Your task to perform on an android device: install app "Adobe Express: Graphic Design" Image 0: 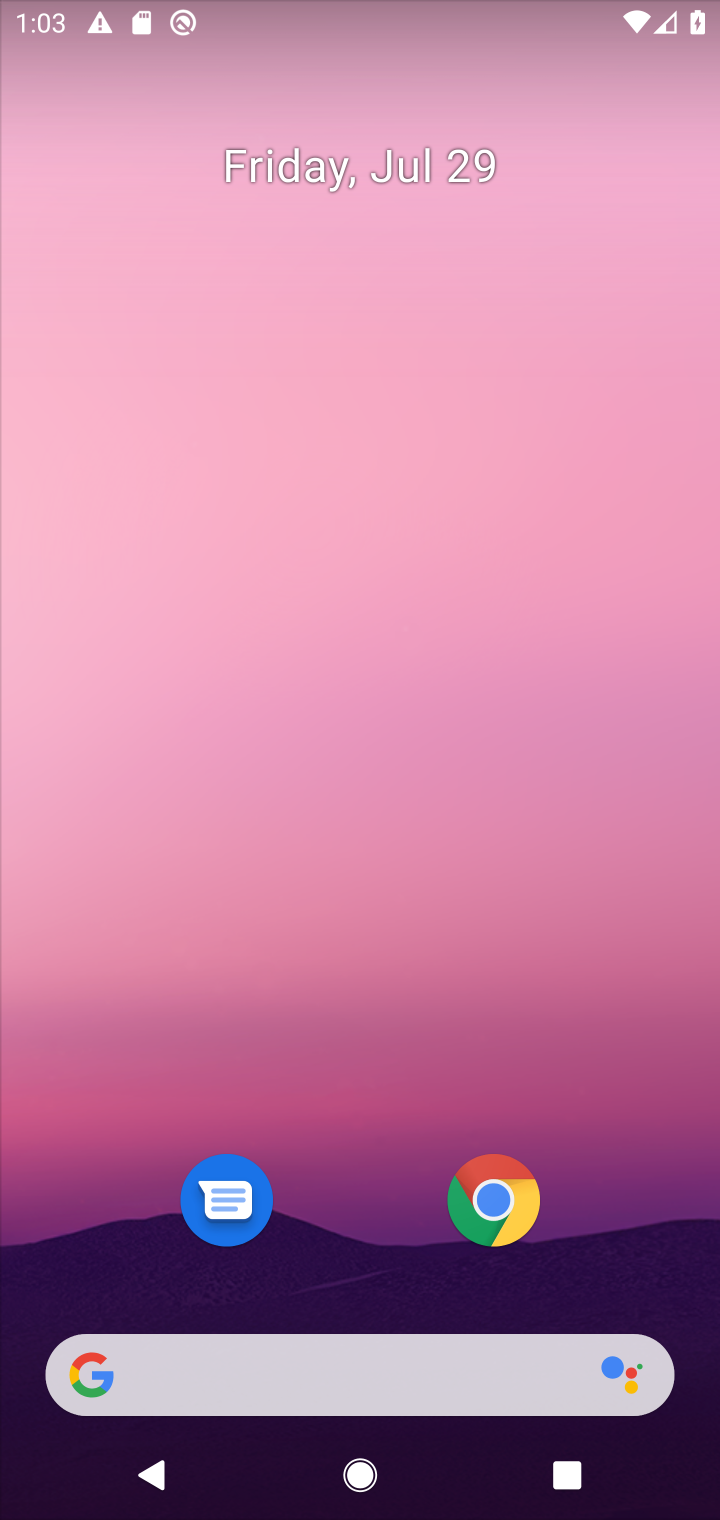
Step 0: drag from (651, 1200) to (554, 105)
Your task to perform on an android device: install app "Adobe Express: Graphic Design" Image 1: 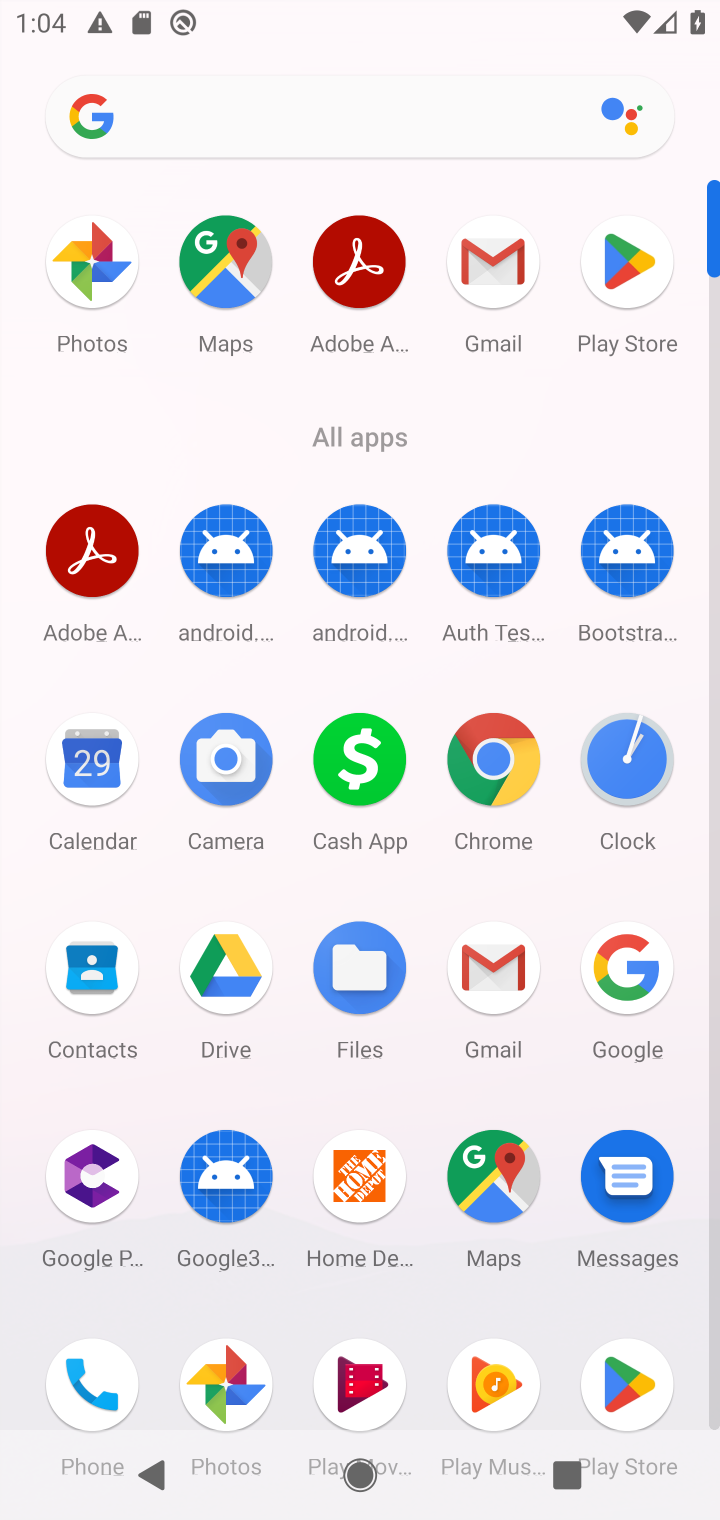
Step 1: drag from (427, 1247) to (524, 582)
Your task to perform on an android device: install app "Adobe Express: Graphic Design" Image 2: 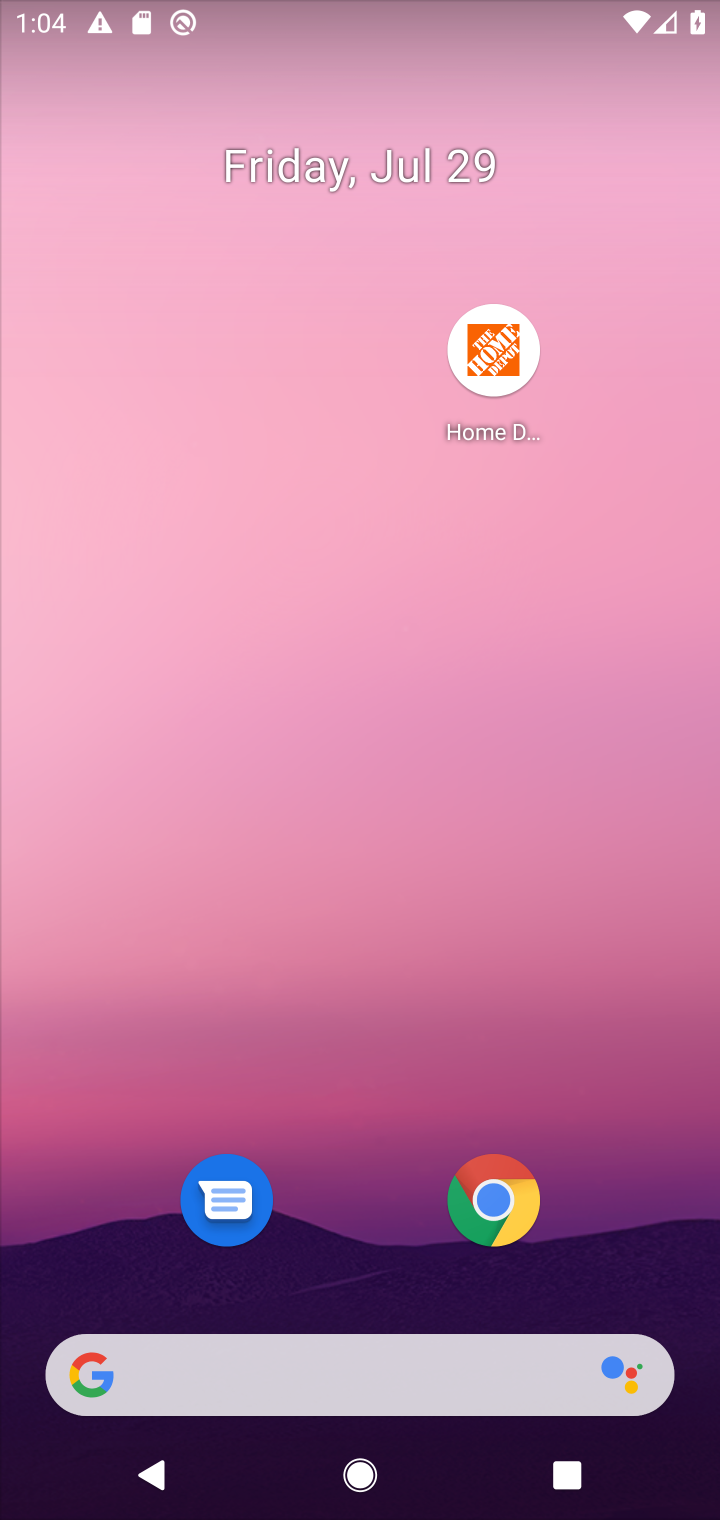
Step 2: drag from (590, 427) to (715, 133)
Your task to perform on an android device: install app "Adobe Express: Graphic Design" Image 3: 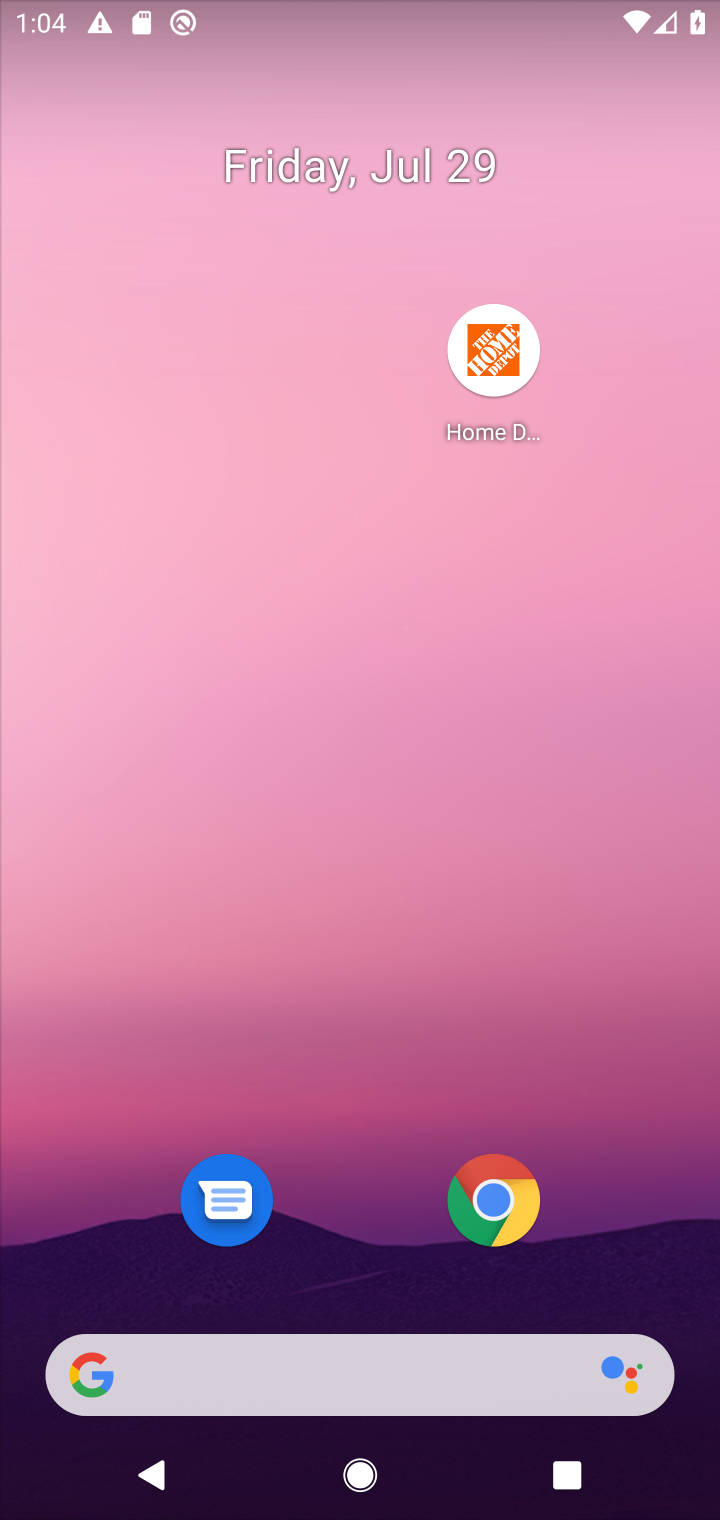
Step 3: drag from (574, 515) to (615, 29)
Your task to perform on an android device: install app "Adobe Express: Graphic Design" Image 4: 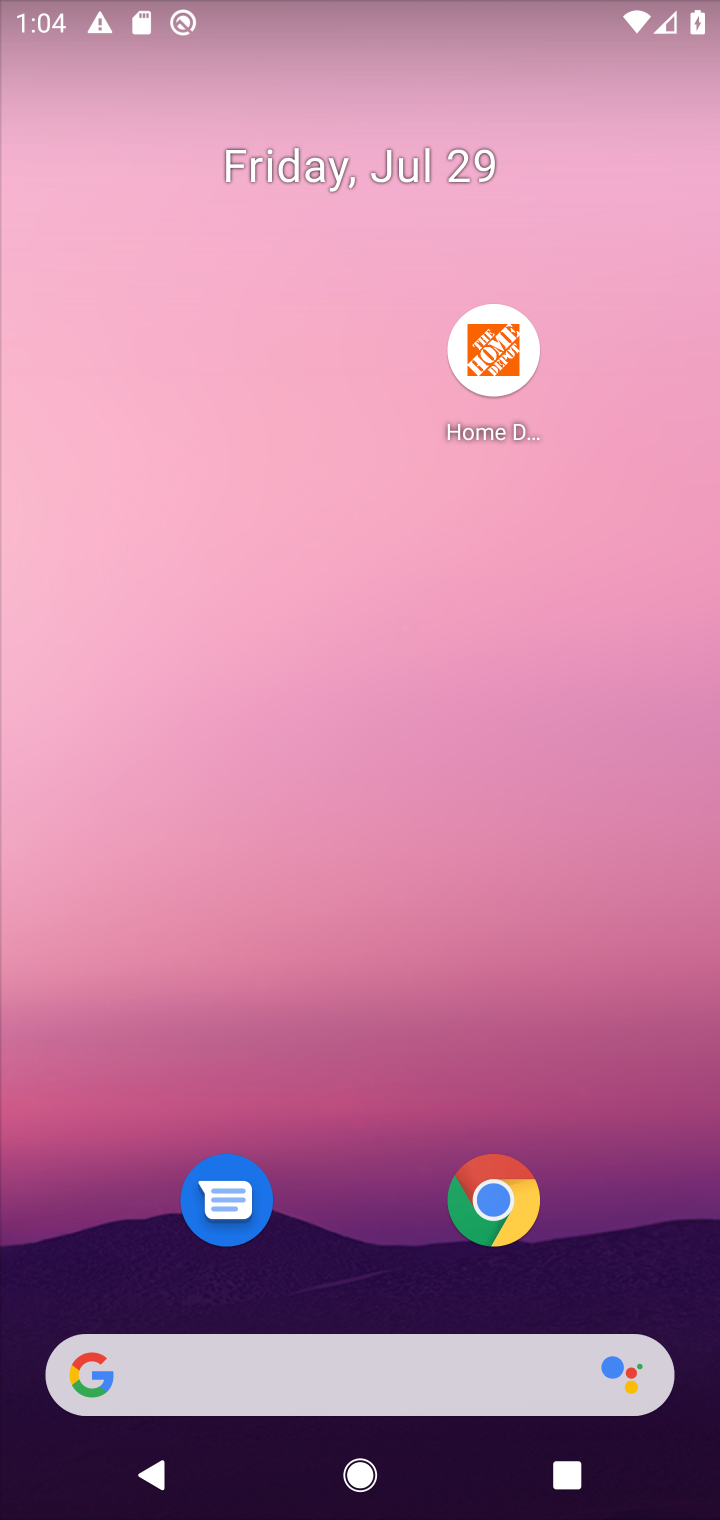
Step 4: drag from (374, 788) to (467, 42)
Your task to perform on an android device: install app "Adobe Express: Graphic Design" Image 5: 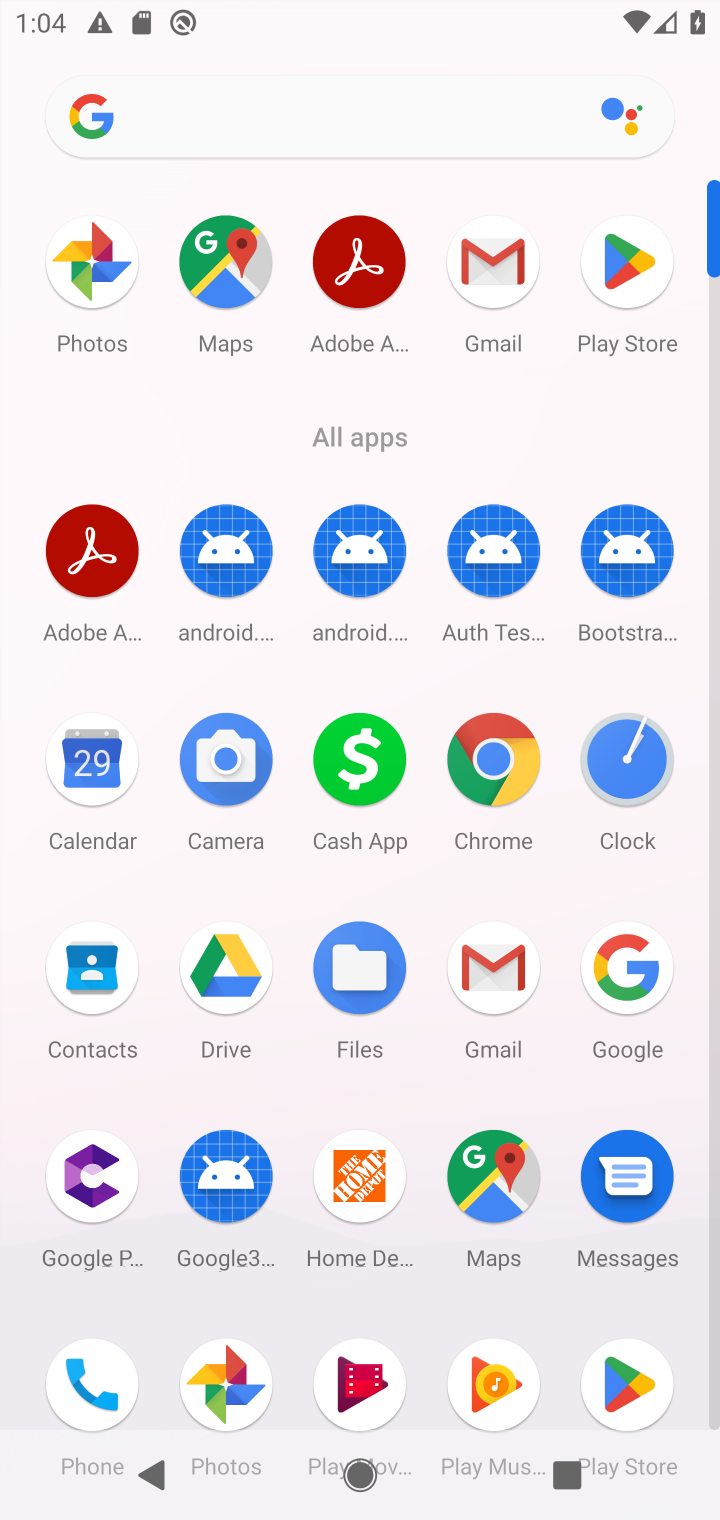
Step 5: click (634, 326)
Your task to perform on an android device: install app "Adobe Express: Graphic Design" Image 6: 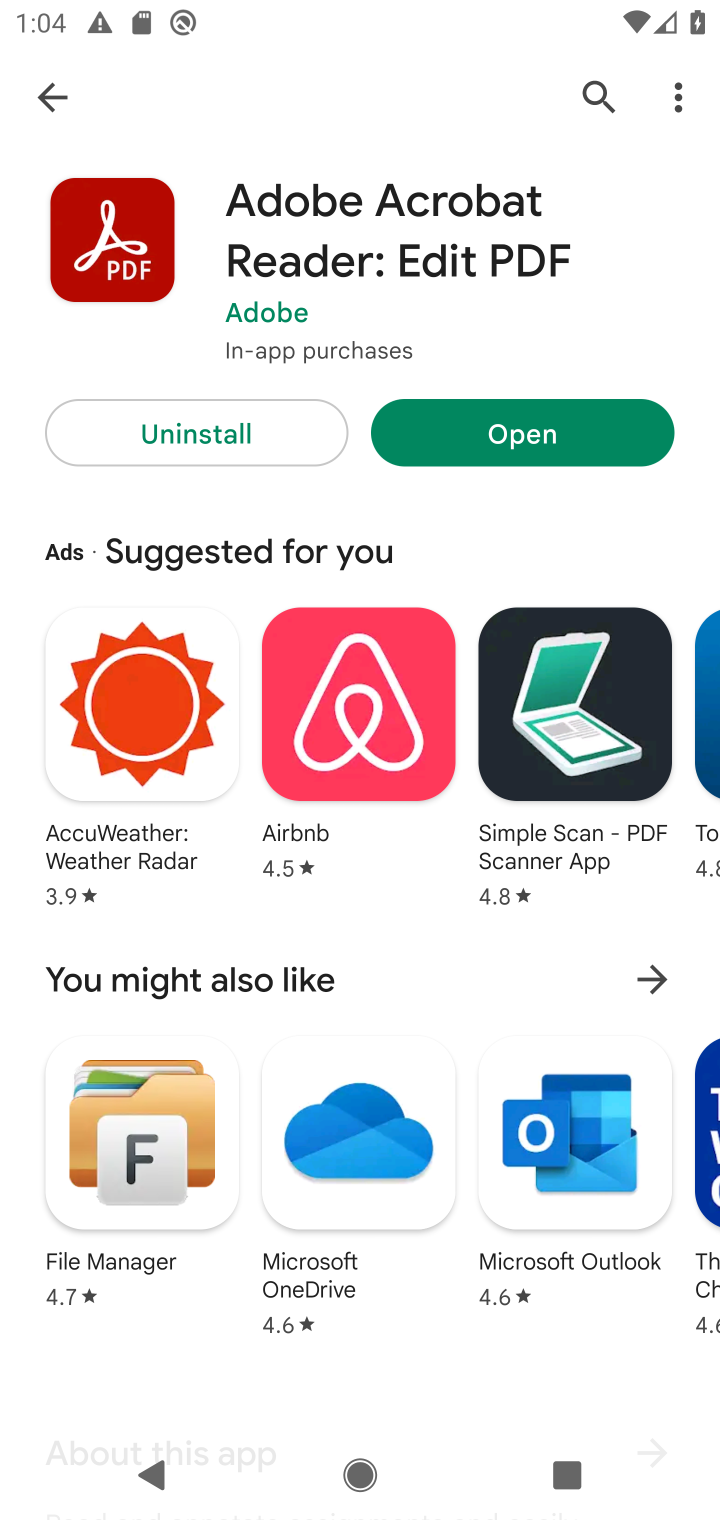
Step 6: click (596, 91)
Your task to perform on an android device: install app "Adobe Express: Graphic Design" Image 7: 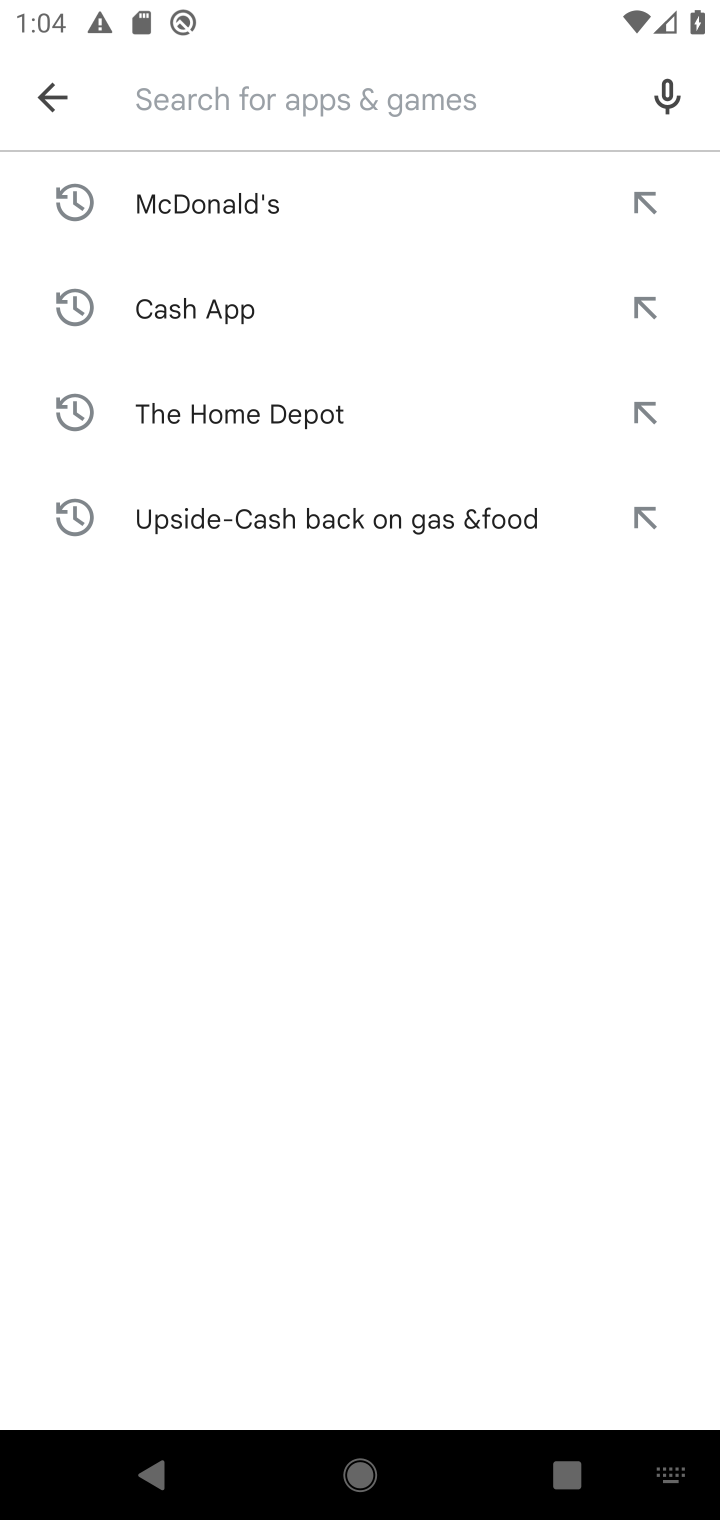
Step 7: type "Adobe Express: Graphic Design"
Your task to perform on an android device: install app "Adobe Express: Graphic Design" Image 8: 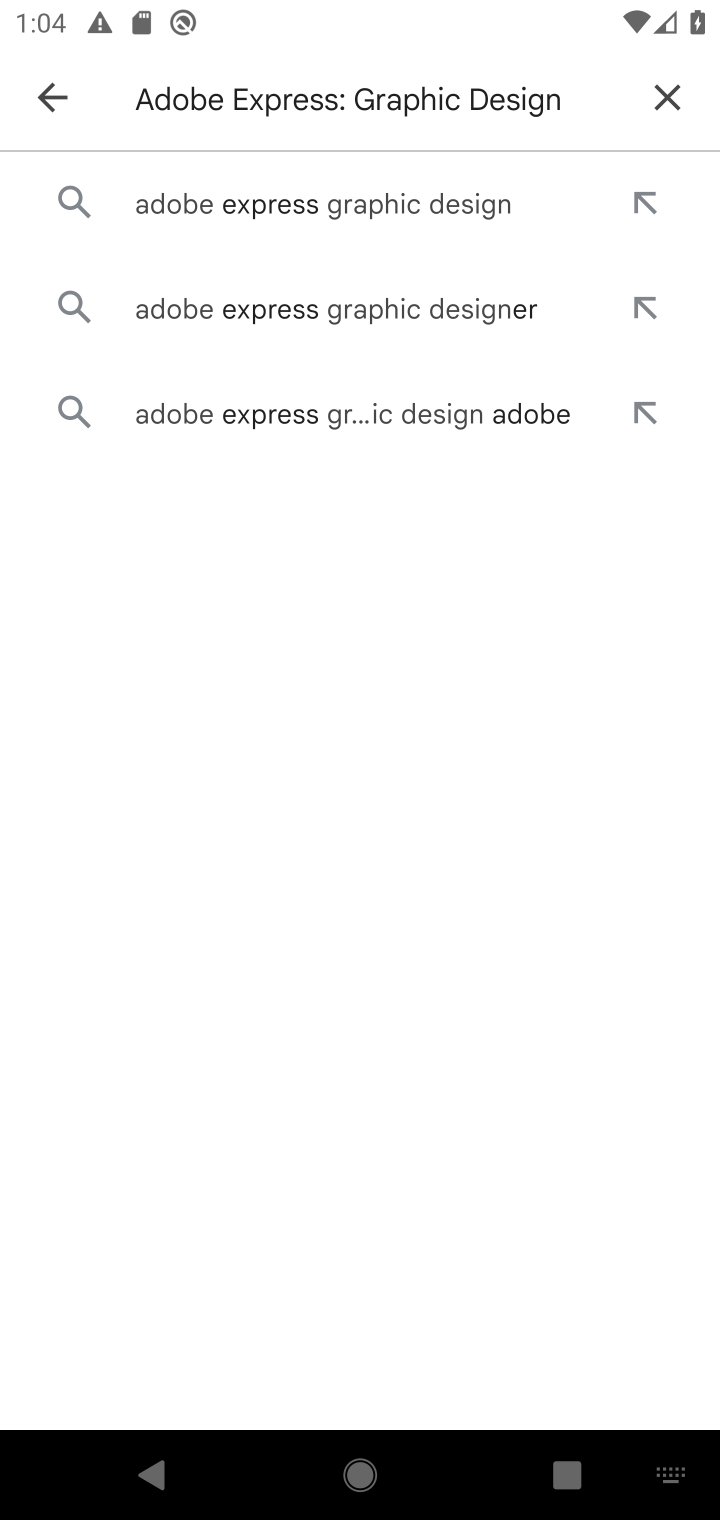
Step 8: press enter
Your task to perform on an android device: install app "Adobe Express: Graphic Design" Image 9: 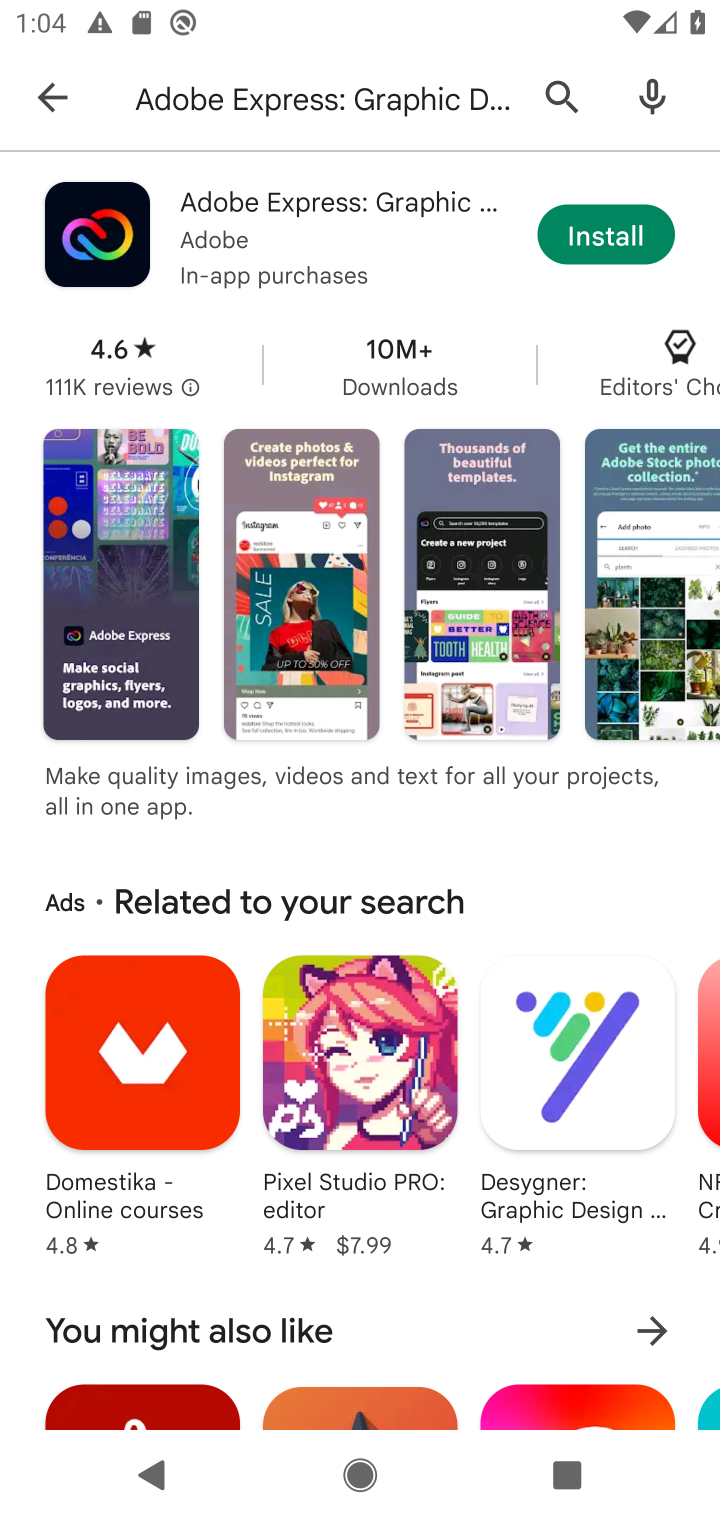
Step 9: click (609, 234)
Your task to perform on an android device: install app "Adobe Express: Graphic Design" Image 10: 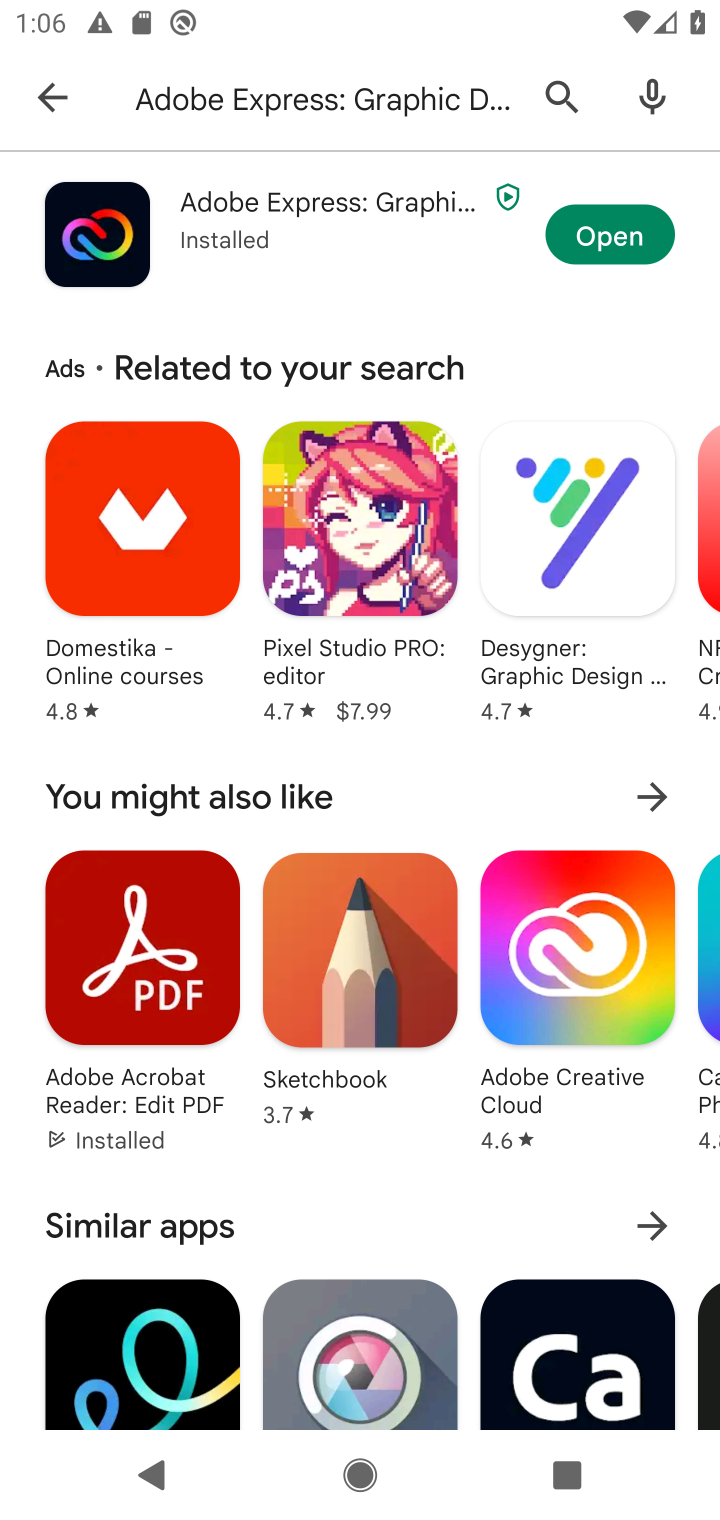
Step 10: task complete